Your task to perform on an android device: turn notification dots on Image 0: 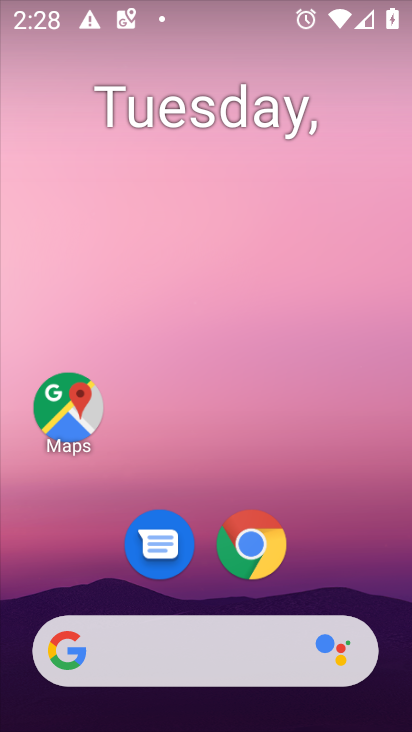
Step 0: drag from (330, 408) to (282, 0)
Your task to perform on an android device: turn notification dots on Image 1: 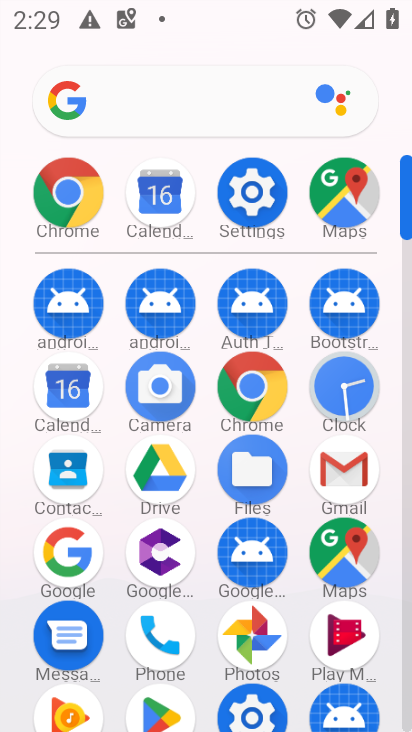
Step 1: click (251, 699)
Your task to perform on an android device: turn notification dots on Image 2: 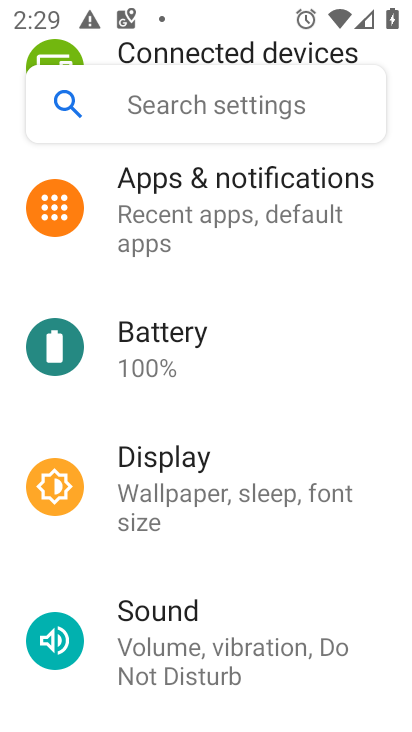
Step 2: click (218, 226)
Your task to perform on an android device: turn notification dots on Image 3: 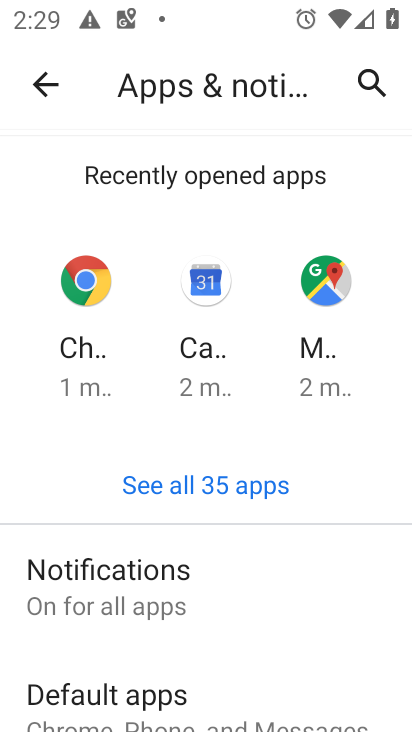
Step 3: drag from (203, 637) to (195, 324)
Your task to perform on an android device: turn notification dots on Image 4: 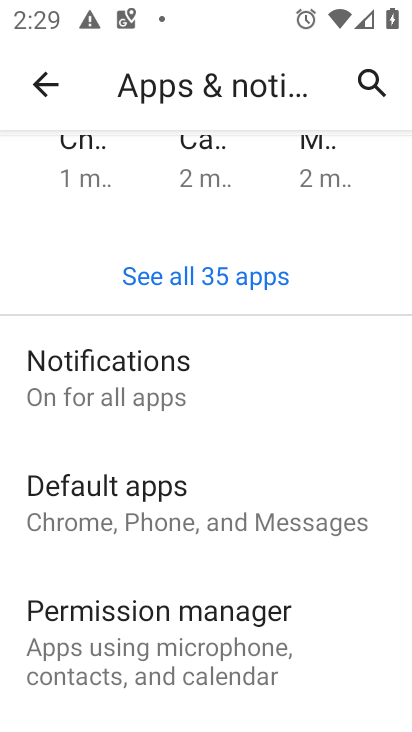
Step 4: click (116, 505)
Your task to perform on an android device: turn notification dots on Image 5: 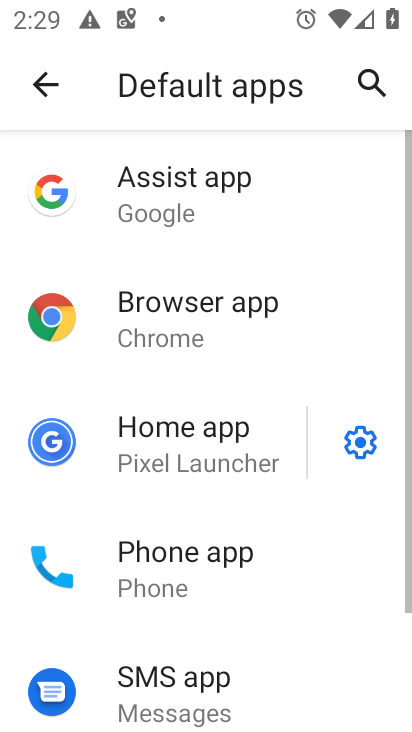
Step 5: click (41, 79)
Your task to perform on an android device: turn notification dots on Image 6: 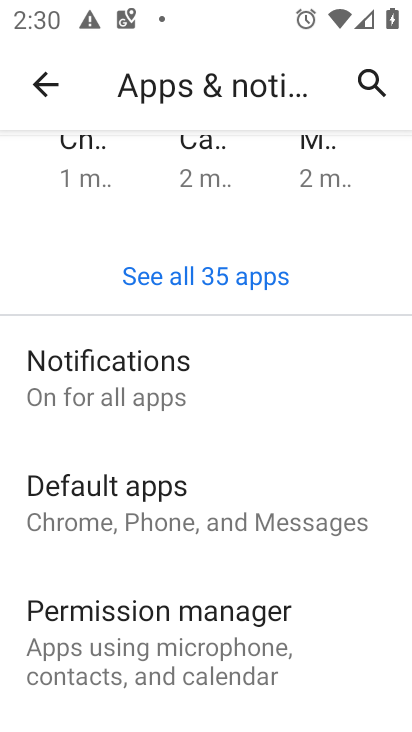
Step 6: click (120, 388)
Your task to perform on an android device: turn notification dots on Image 7: 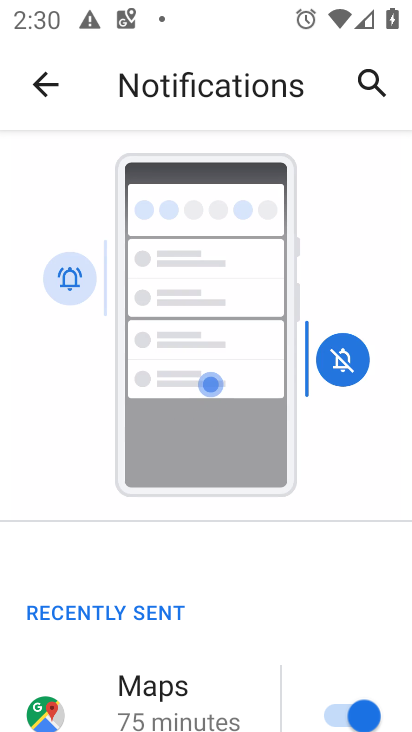
Step 7: drag from (251, 608) to (266, 154)
Your task to perform on an android device: turn notification dots on Image 8: 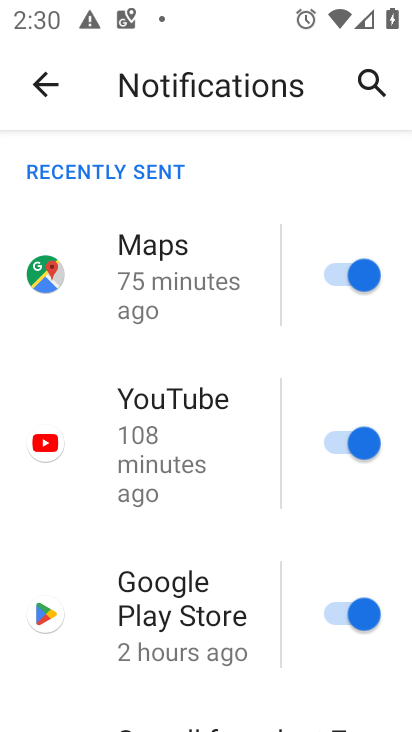
Step 8: drag from (198, 642) to (237, 146)
Your task to perform on an android device: turn notification dots on Image 9: 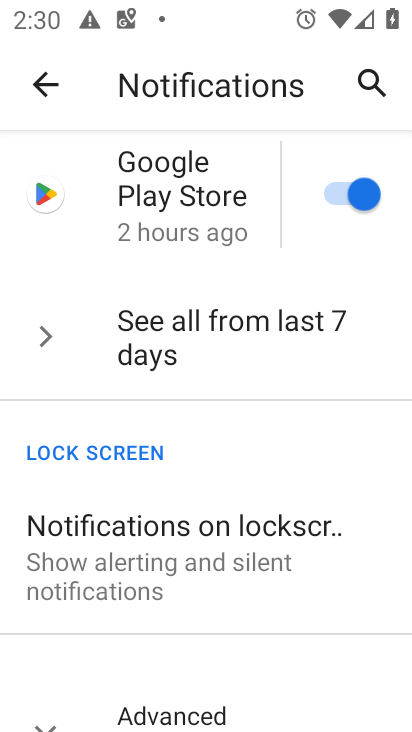
Step 9: drag from (263, 665) to (276, 200)
Your task to perform on an android device: turn notification dots on Image 10: 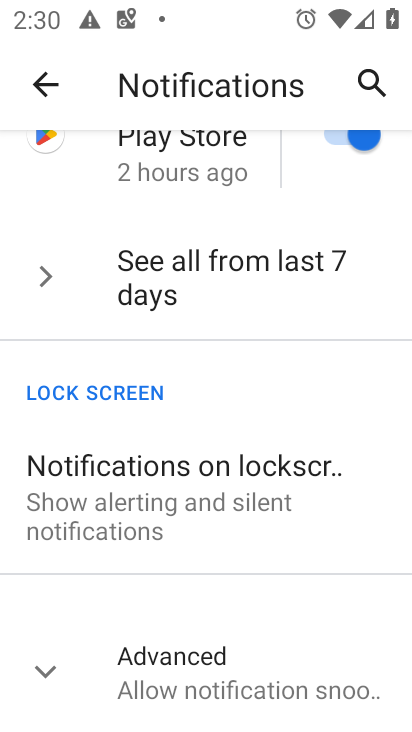
Step 10: click (196, 640)
Your task to perform on an android device: turn notification dots on Image 11: 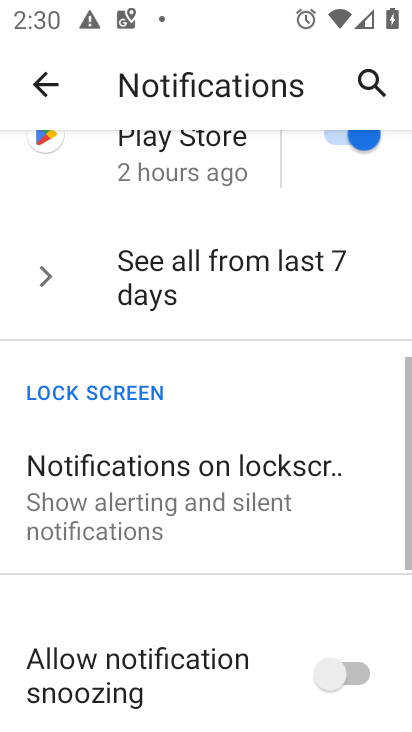
Step 11: drag from (269, 612) to (304, 128)
Your task to perform on an android device: turn notification dots on Image 12: 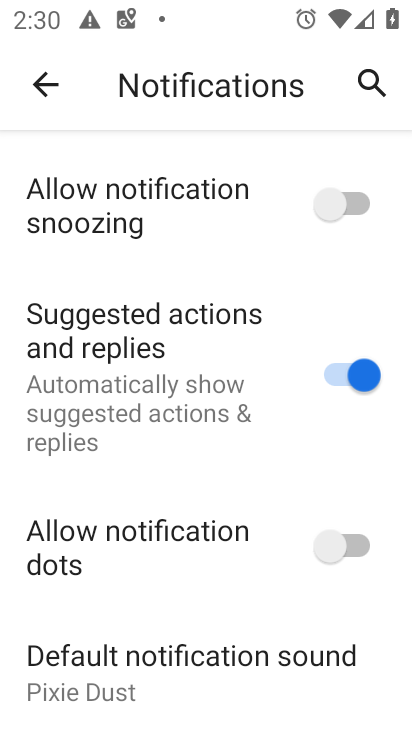
Step 12: click (333, 557)
Your task to perform on an android device: turn notification dots on Image 13: 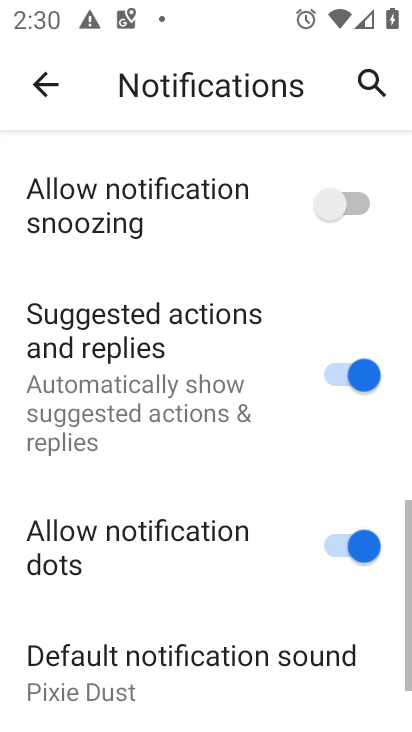
Step 13: task complete